Your task to perform on an android device: empty trash in the gmail app Image 0: 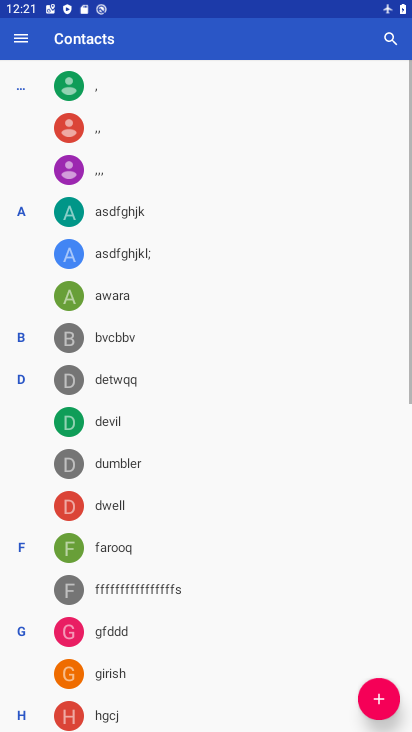
Step 0: press home button
Your task to perform on an android device: empty trash in the gmail app Image 1: 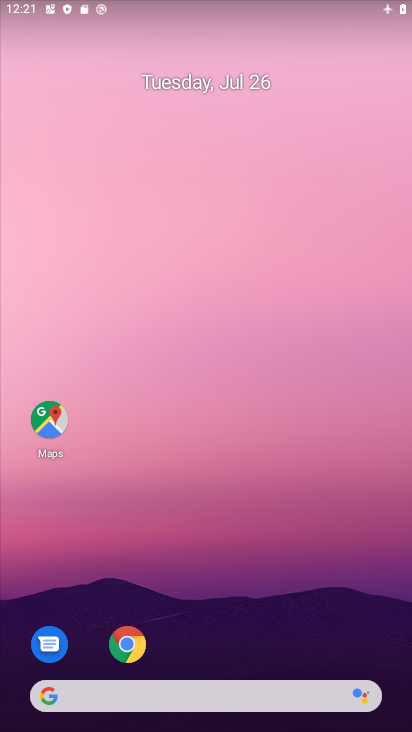
Step 1: drag from (261, 690) to (276, 181)
Your task to perform on an android device: empty trash in the gmail app Image 2: 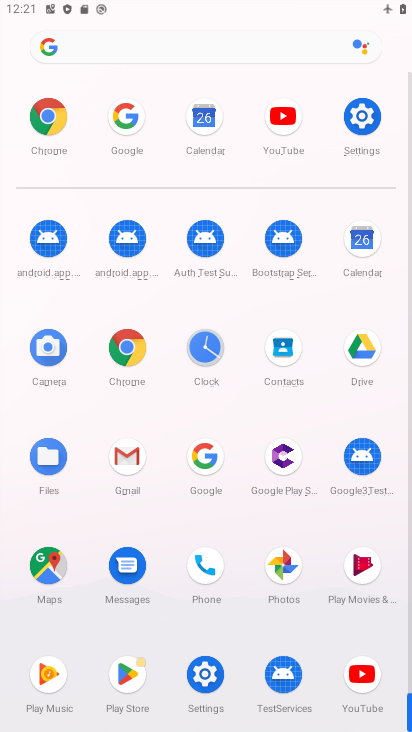
Step 2: click (123, 490)
Your task to perform on an android device: empty trash in the gmail app Image 3: 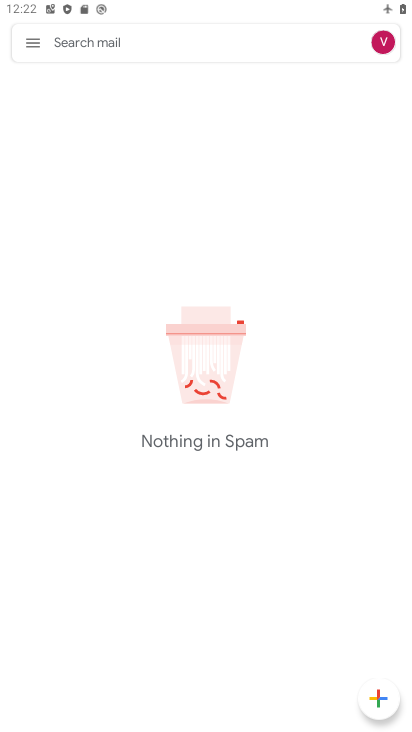
Step 3: click (34, 43)
Your task to perform on an android device: empty trash in the gmail app Image 4: 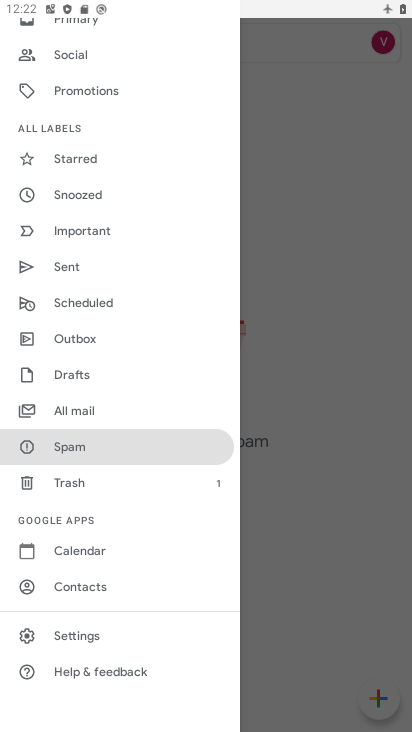
Step 4: click (111, 484)
Your task to perform on an android device: empty trash in the gmail app Image 5: 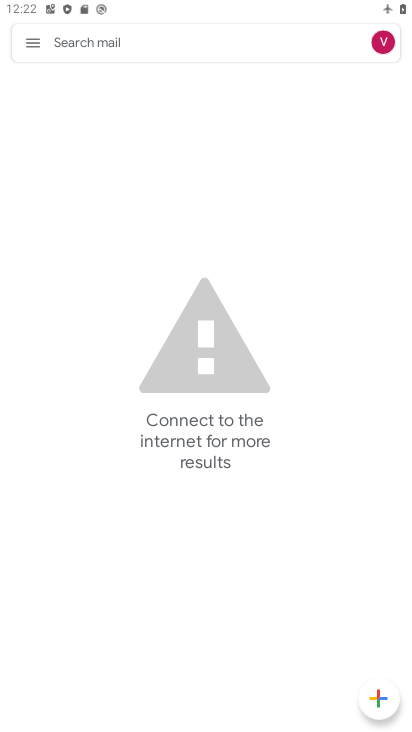
Step 5: task complete